Your task to perform on an android device: Show me popular games on the Play Store Image 0: 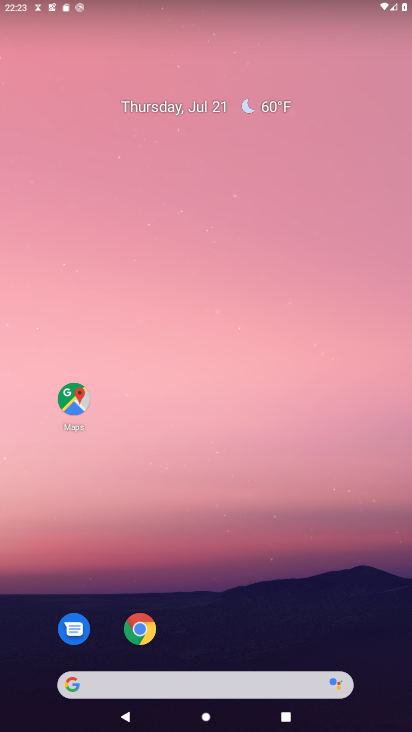
Step 0: drag from (260, 667) to (239, 322)
Your task to perform on an android device: Show me popular games on the Play Store Image 1: 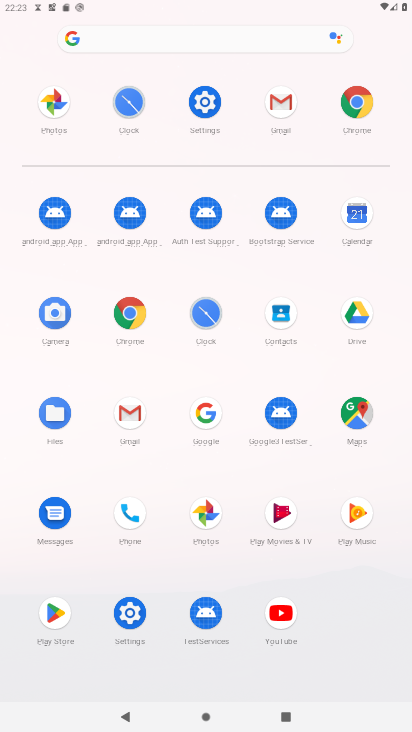
Step 1: click (45, 604)
Your task to perform on an android device: Show me popular games on the Play Store Image 2: 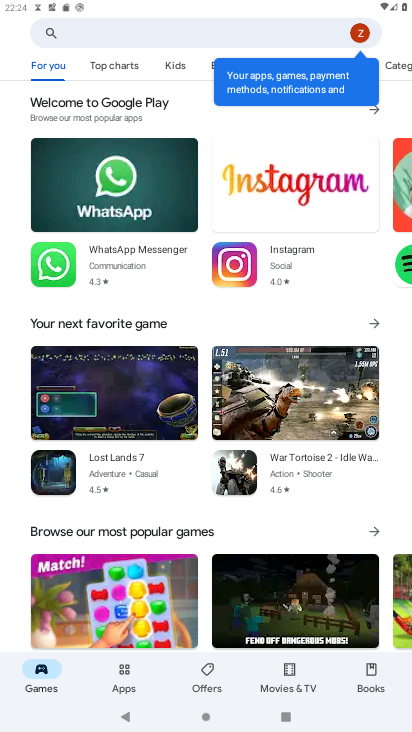
Step 2: task complete